Your task to perform on an android device: add a contact Image 0: 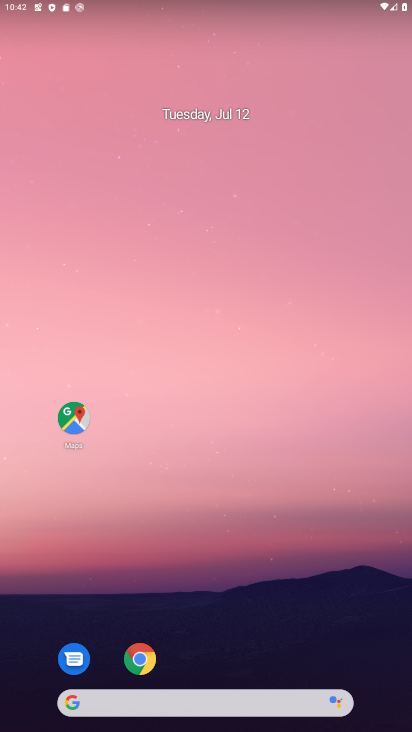
Step 0: drag from (395, 697) to (266, 244)
Your task to perform on an android device: add a contact Image 1: 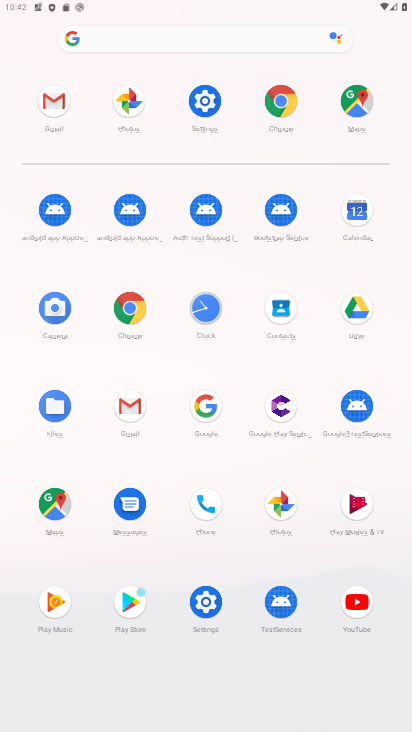
Step 1: click (279, 309)
Your task to perform on an android device: add a contact Image 2: 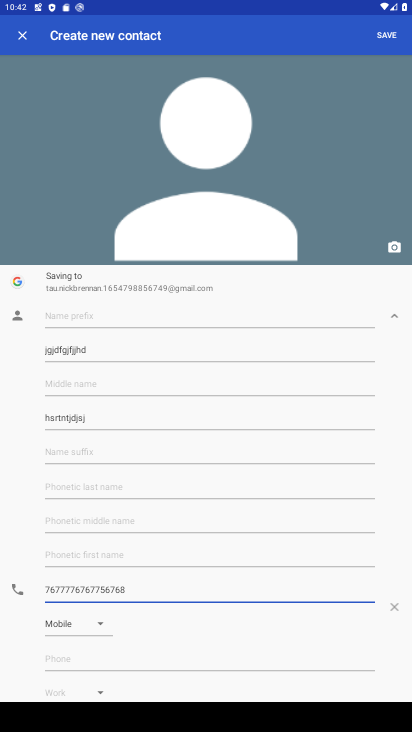
Step 2: click (100, 318)
Your task to perform on an android device: add a contact Image 3: 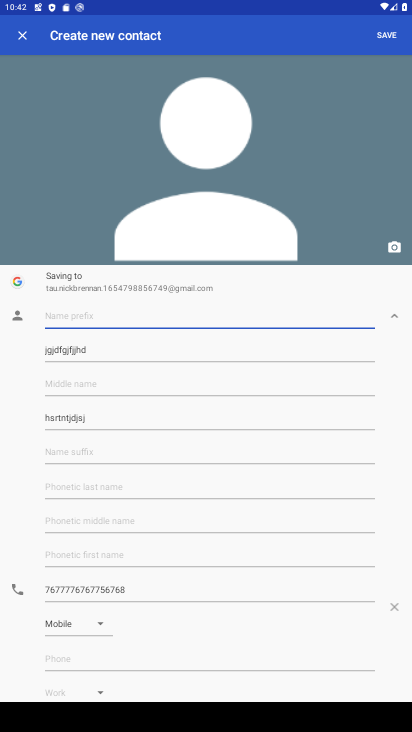
Step 3: type "favsfvbvf"
Your task to perform on an android device: add a contact Image 4: 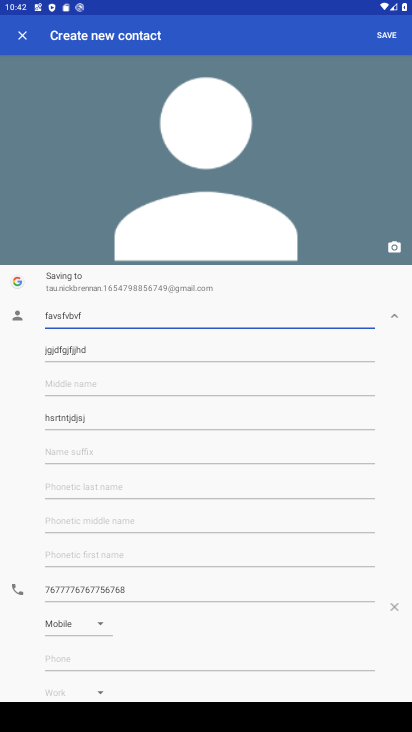
Step 4: click (97, 345)
Your task to perform on an android device: add a contact Image 5: 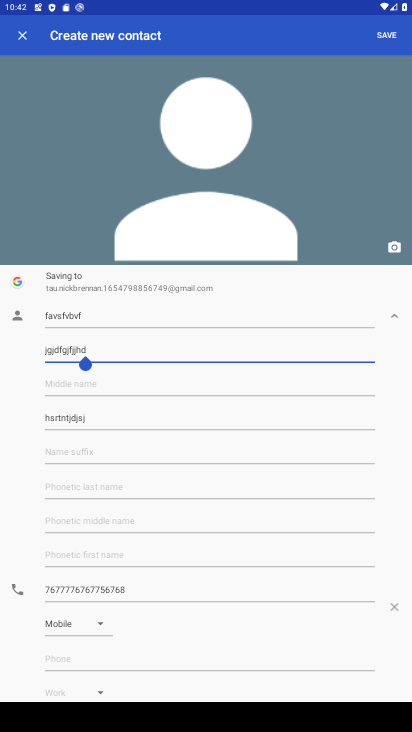
Step 5: click (93, 384)
Your task to perform on an android device: add a contact Image 6: 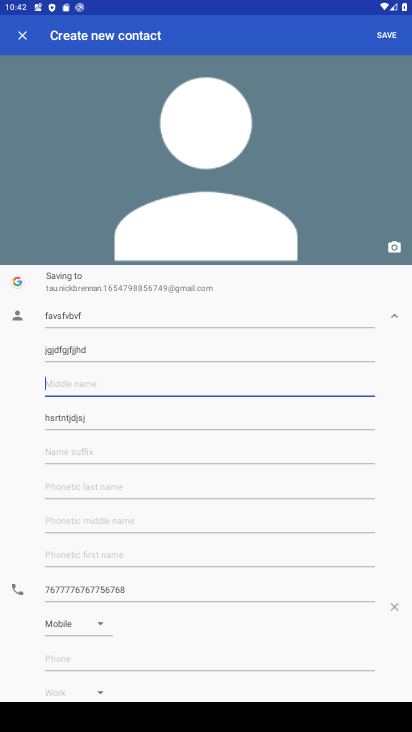
Step 6: type "svsaasvv"
Your task to perform on an android device: add a contact Image 7: 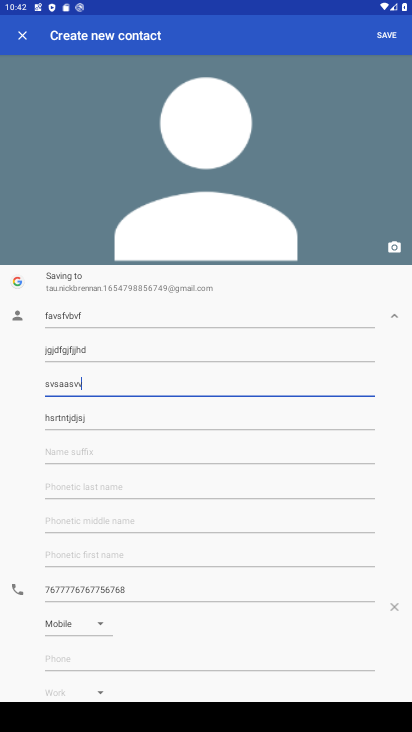
Step 7: click (382, 37)
Your task to perform on an android device: add a contact Image 8: 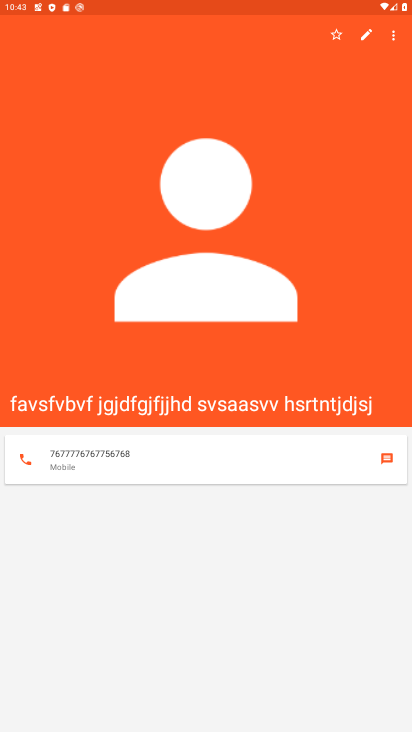
Step 8: task complete